Your task to perform on an android device: open app "NewsBreak: Local News & Alerts" (install if not already installed) and go to login screen Image 0: 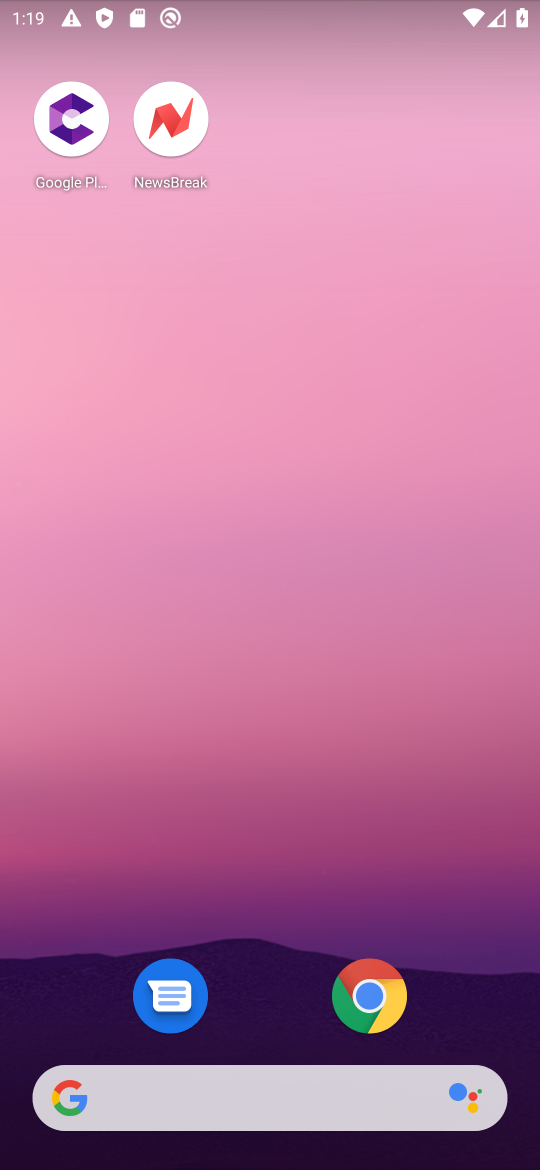
Step 0: drag from (407, 1002) to (506, 37)
Your task to perform on an android device: open app "NewsBreak: Local News & Alerts" (install if not already installed) and go to login screen Image 1: 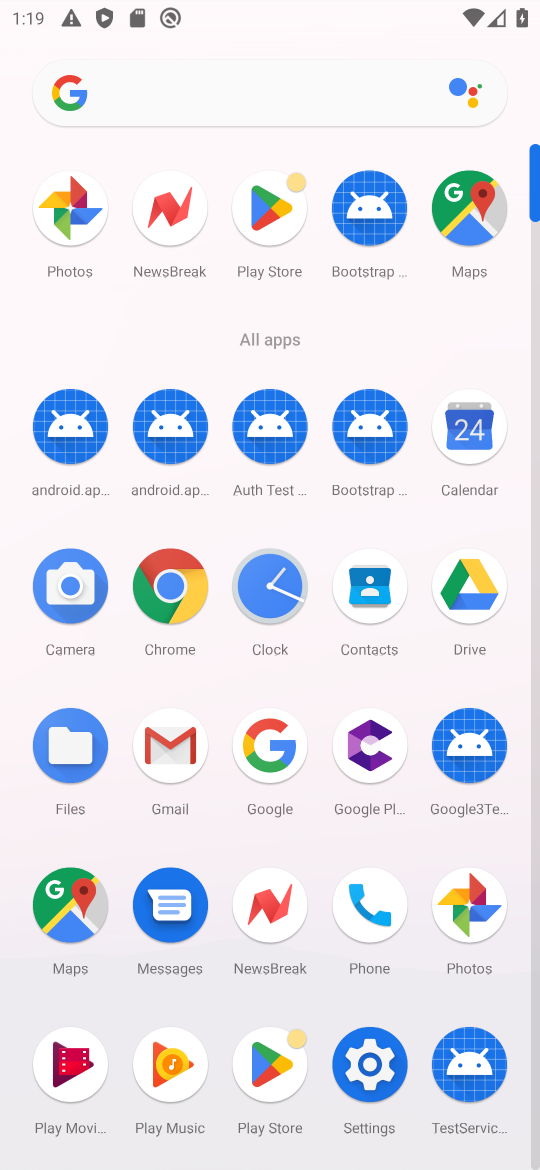
Step 1: click (266, 215)
Your task to perform on an android device: open app "NewsBreak: Local News & Alerts" (install if not already installed) and go to login screen Image 2: 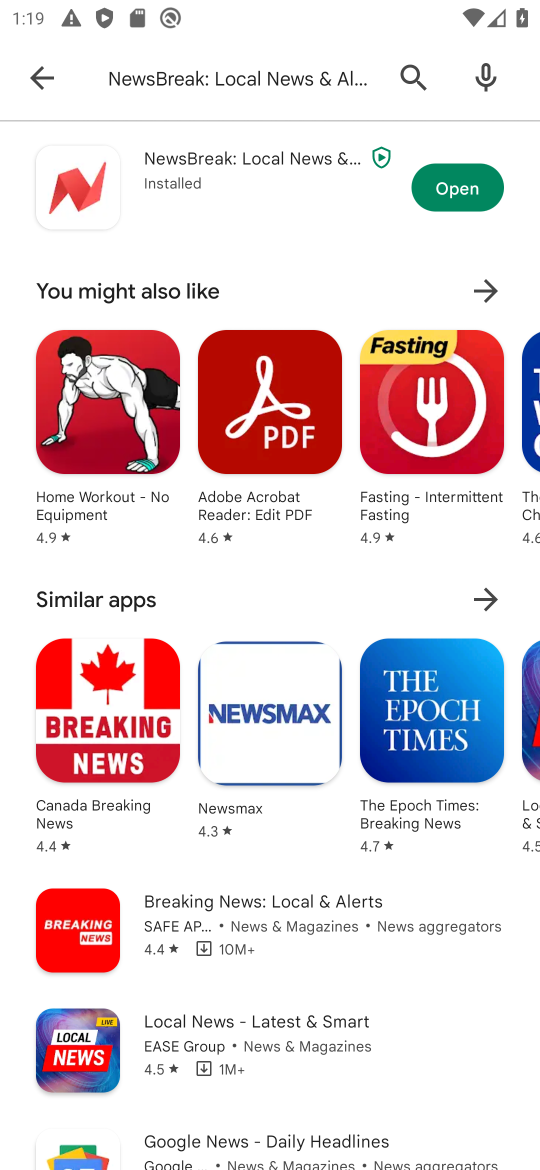
Step 2: press back button
Your task to perform on an android device: open app "NewsBreak: Local News & Alerts" (install if not already installed) and go to login screen Image 3: 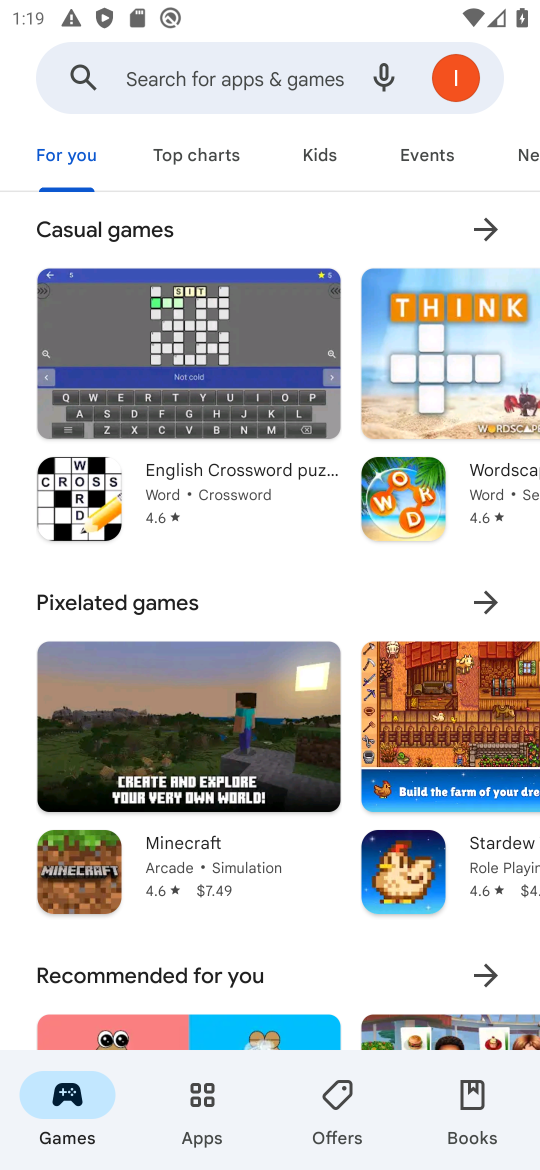
Step 3: click (216, 89)
Your task to perform on an android device: open app "NewsBreak: Local News & Alerts" (install if not already installed) and go to login screen Image 4: 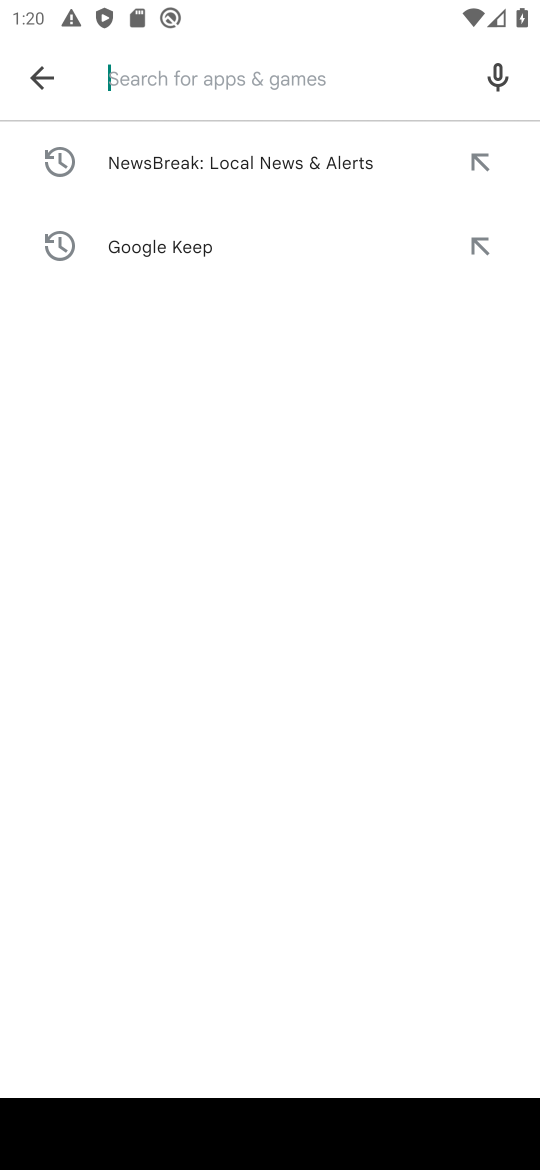
Step 4: type "NewsBreak: Local News & Alerts"
Your task to perform on an android device: open app "NewsBreak: Local News & Alerts" (install if not already installed) and go to login screen Image 5: 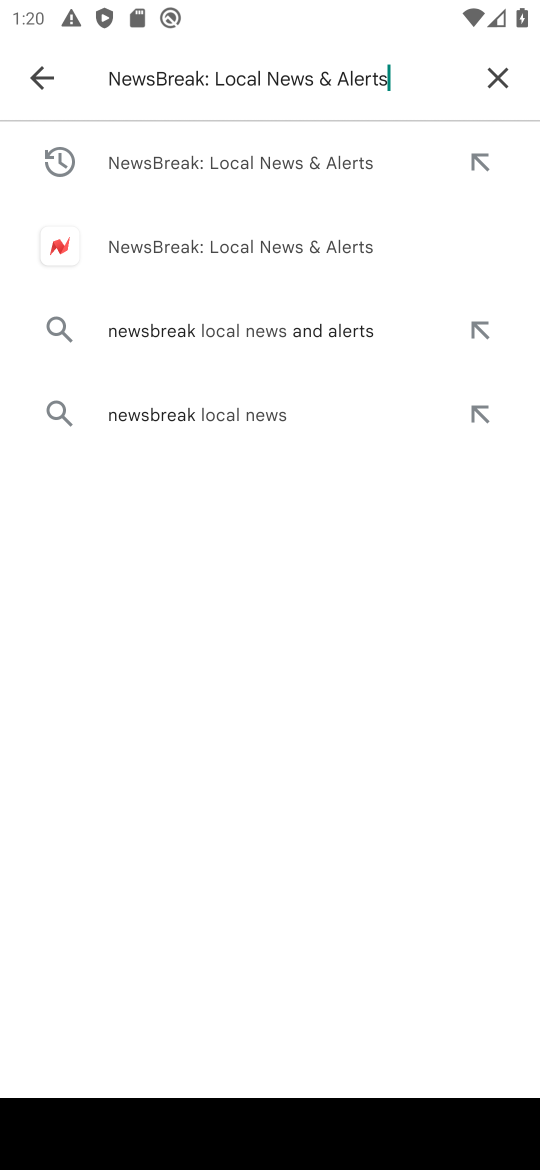
Step 5: press enter
Your task to perform on an android device: open app "NewsBreak: Local News & Alerts" (install if not already installed) and go to login screen Image 6: 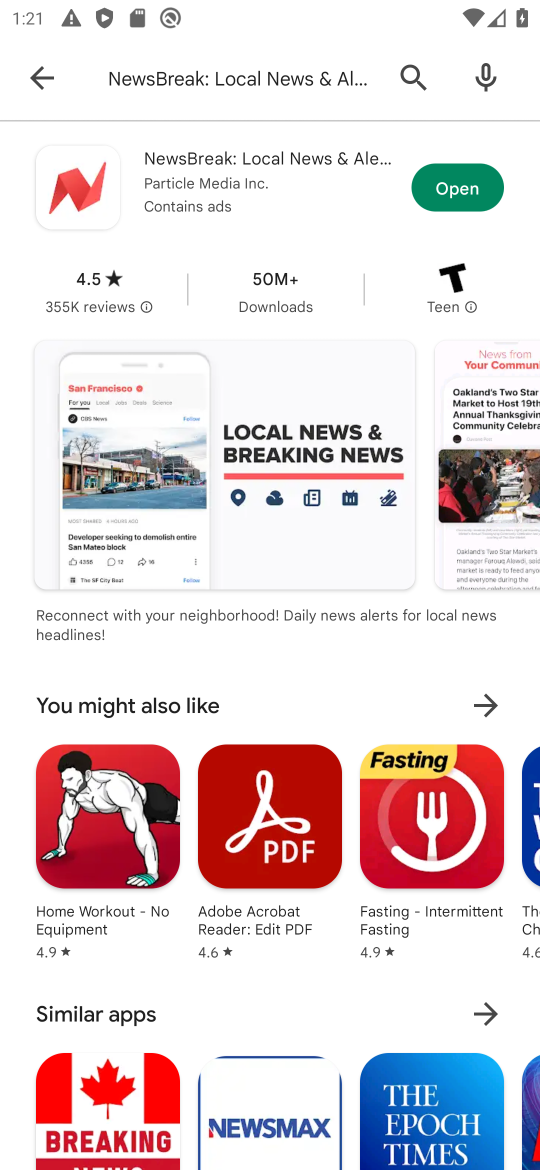
Step 6: click (442, 207)
Your task to perform on an android device: open app "NewsBreak: Local News & Alerts" (install if not already installed) and go to login screen Image 7: 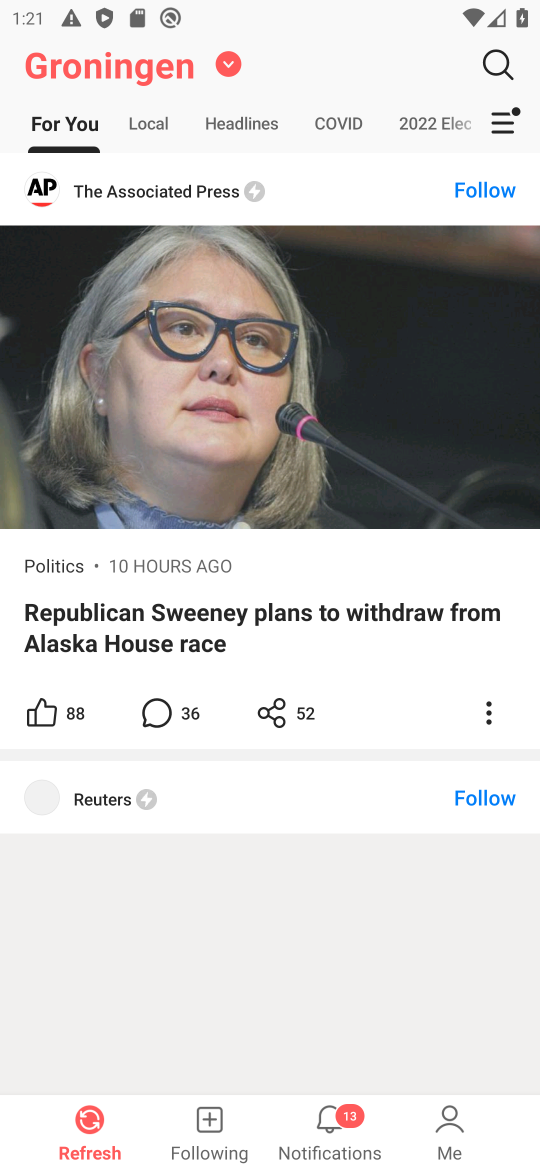
Step 7: drag from (263, 934) to (209, 256)
Your task to perform on an android device: open app "NewsBreak: Local News & Alerts" (install if not already installed) and go to login screen Image 8: 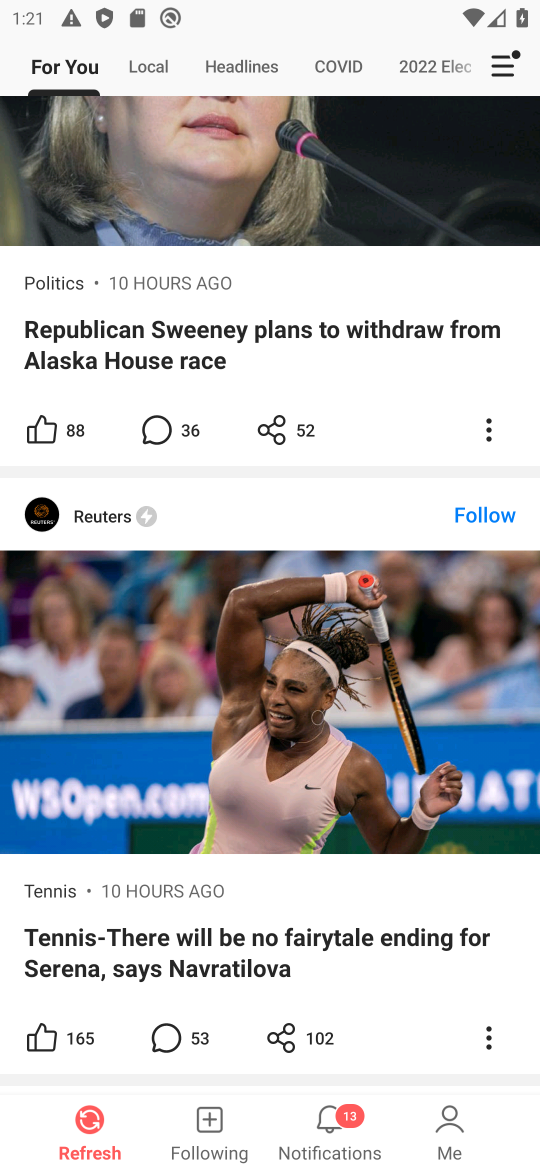
Step 8: drag from (278, 473) to (356, 949)
Your task to perform on an android device: open app "NewsBreak: Local News & Alerts" (install if not already installed) and go to login screen Image 9: 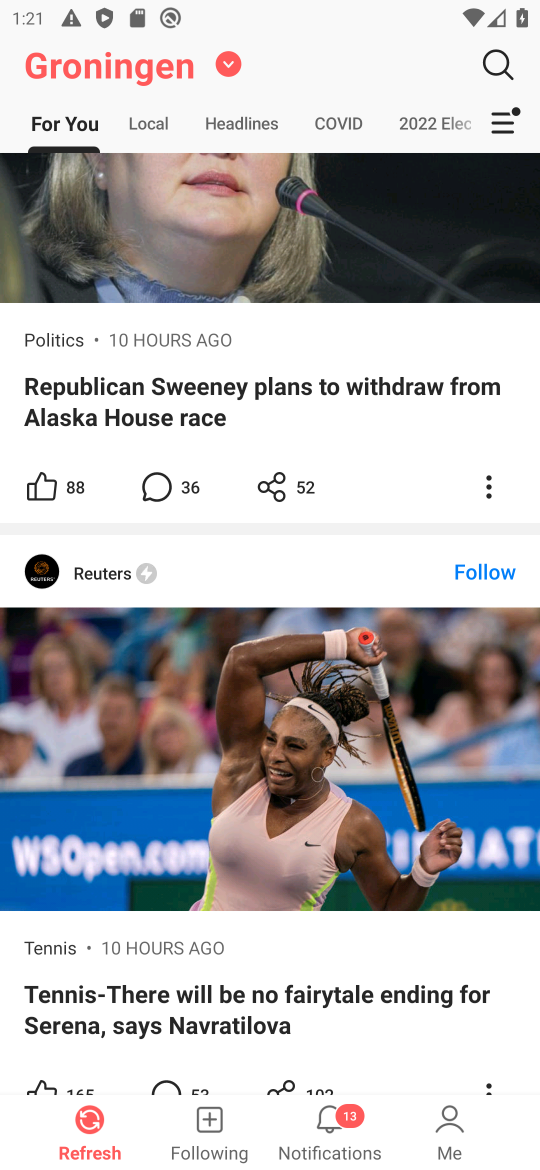
Step 9: drag from (312, 678) to (343, 779)
Your task to perform on an android device: open app "NewsBreak: Local News & Alerts" (install if not already installed) and go to login screen Image 10: 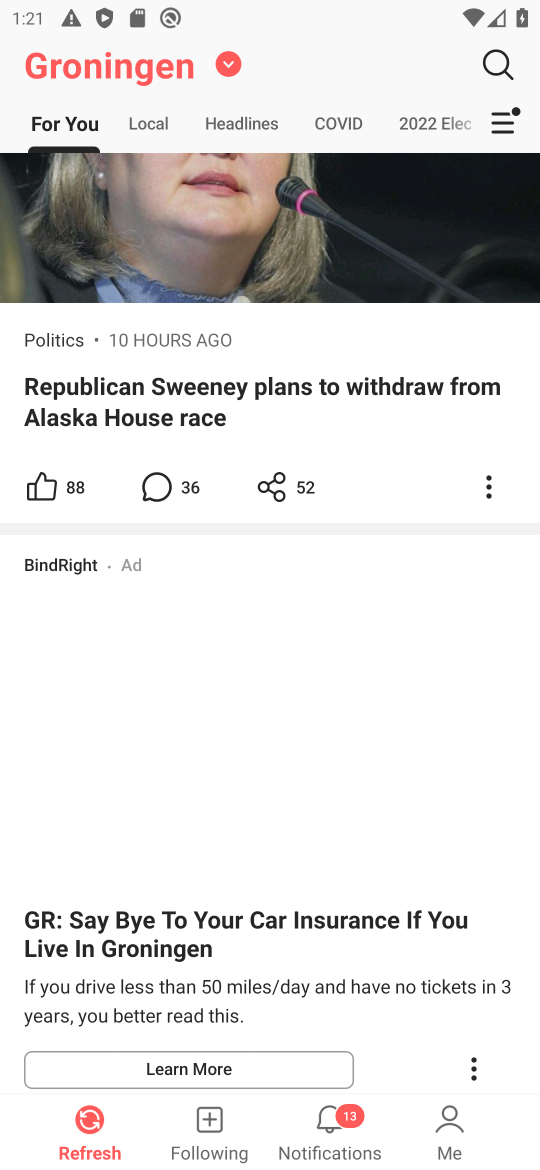
Step 10: click (502, 132)
Your task to perform on an android device: open app "NewsBreak: Local News & Alerts" (install if not already installed) and go to login screen Image 11: 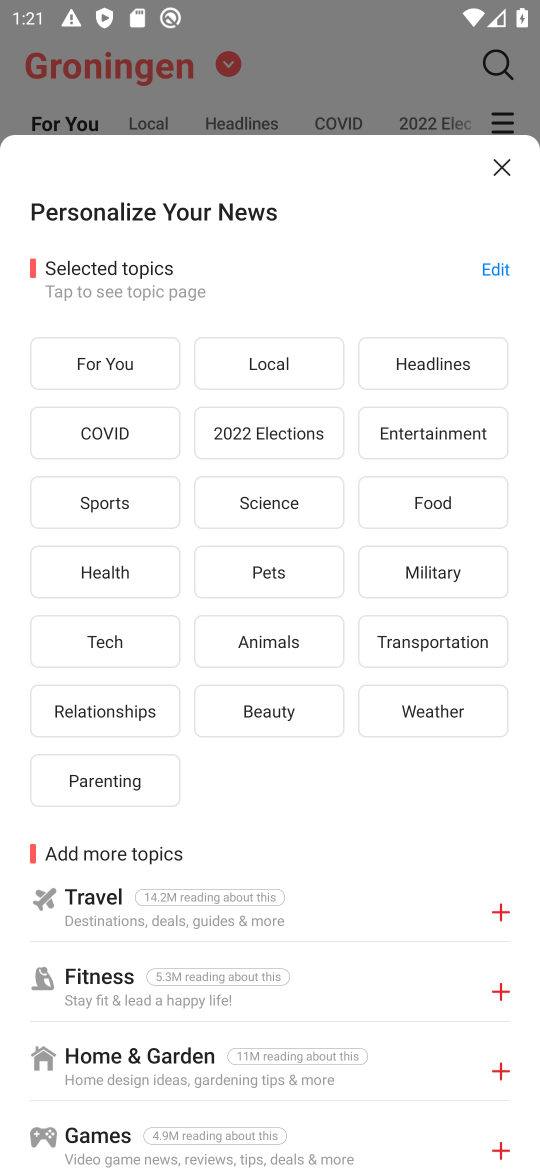
Step 11: click (491, 171)
Your task to perform on an android device: open app "NewsBreak: Local News & Alerts" (install if not already installed) and go to login screen Image 12: 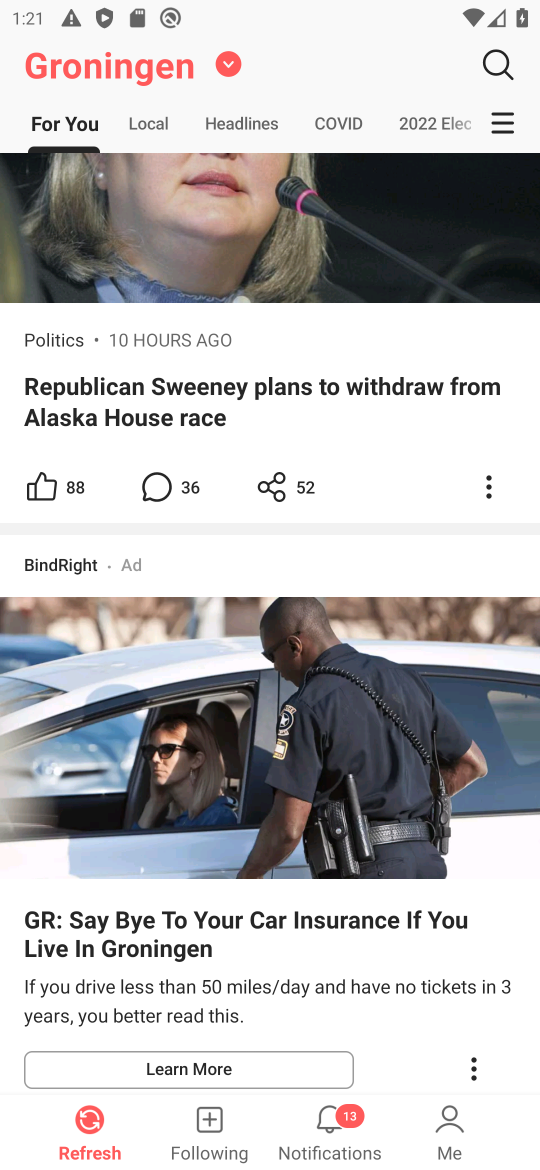
Step 12: drag from (174, 556) to (248, 820)
Your task to perform on an android device: open app "NewsBreak: Local News & Alerts" (install if not already installed) and go to login screen Image 13: 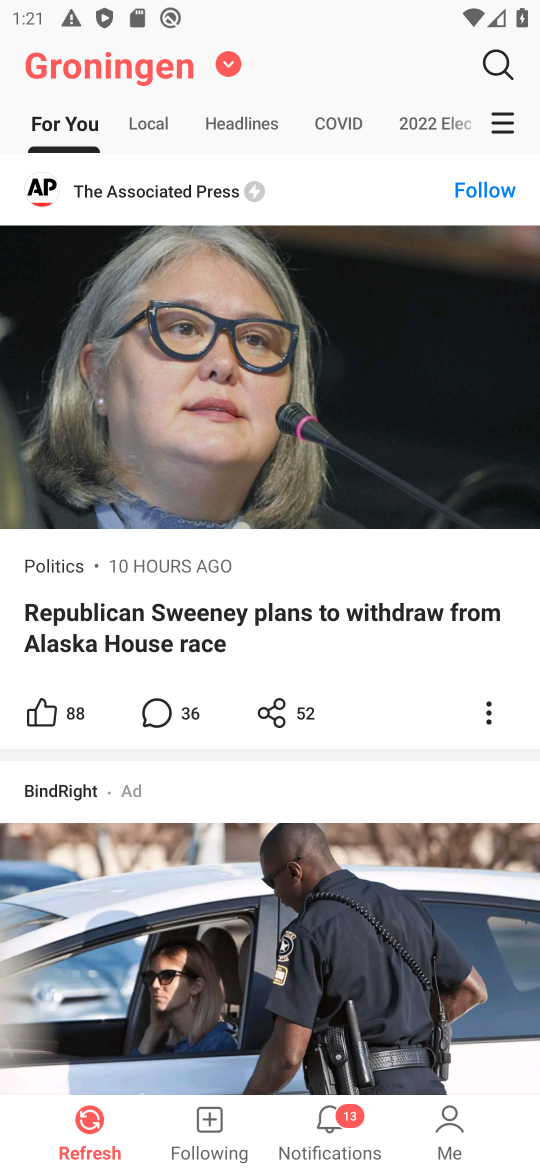
Step 13: click (445, 1141)
Your task to perform on an android device: open app "NewsBreak: Local News & Alerts" (install if not already installed) and go to login screen Image 14: 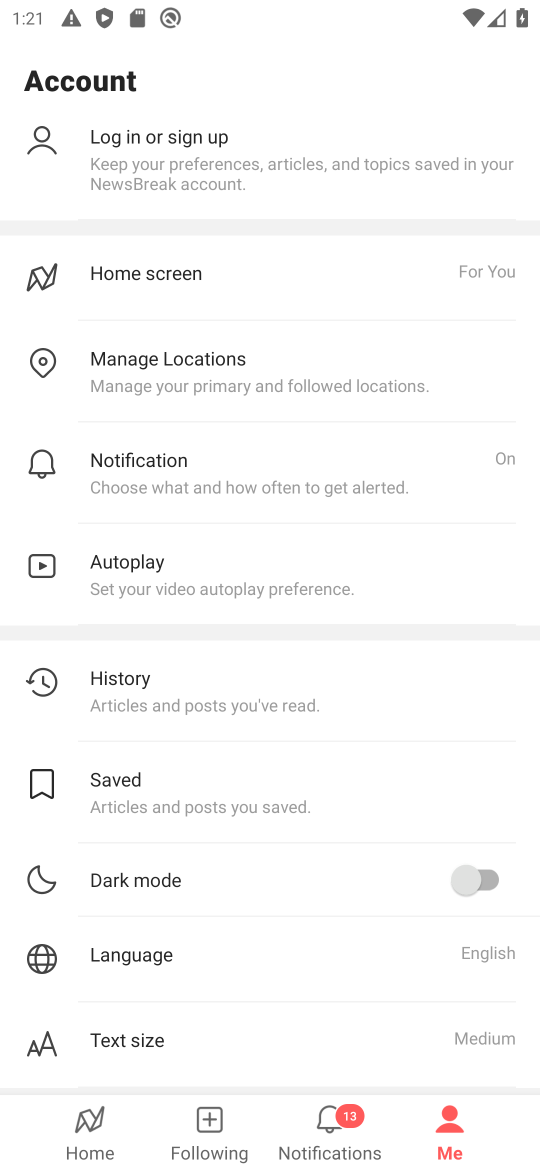
Step 14: click (257, 179)
Your task to perform on an android device: open app "NewsBreak: Local News & Alerts" (install if not already installed) and go to login screen Image 15: 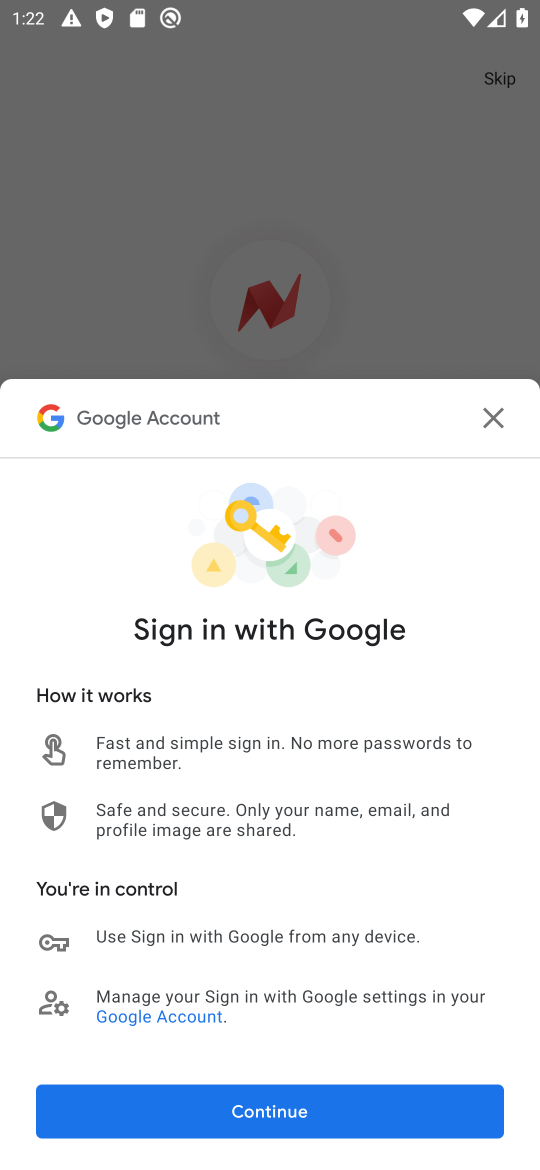
Step 15: click (483, 421)
Your task to perform on an android device: open app "NewsBreak: Local News & Alerts" (install if not already installed) and go to login screen Image 16: 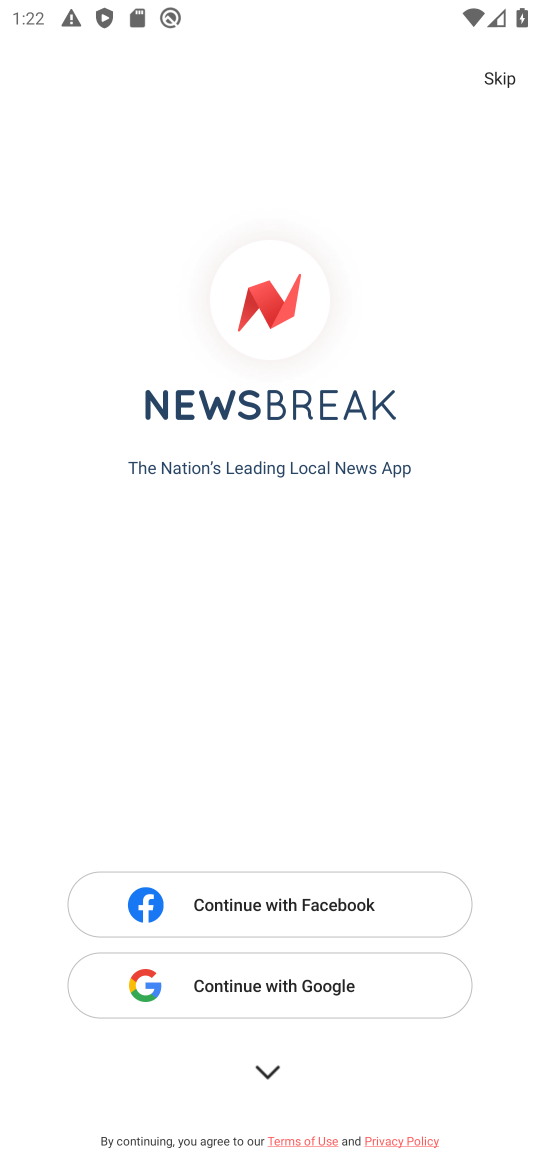
Step 16: task complete